Your task to perform on an android device: turn on translation in the chrome app Image 0: 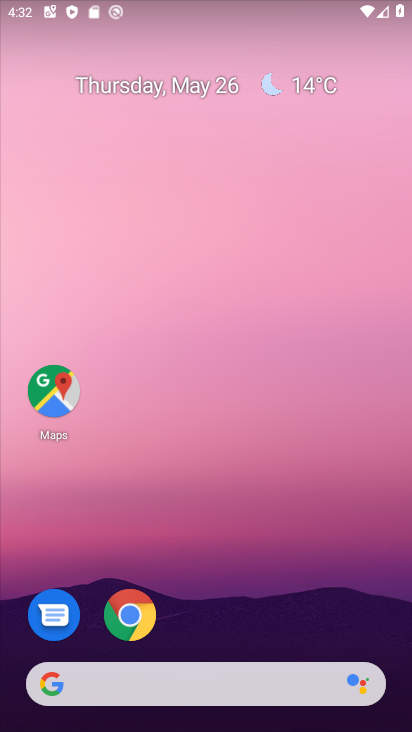
Step 0: drag from (216, 576) to (243, 100)
Your task to perform on an android device: turn on translation in the chrome app Image 1: 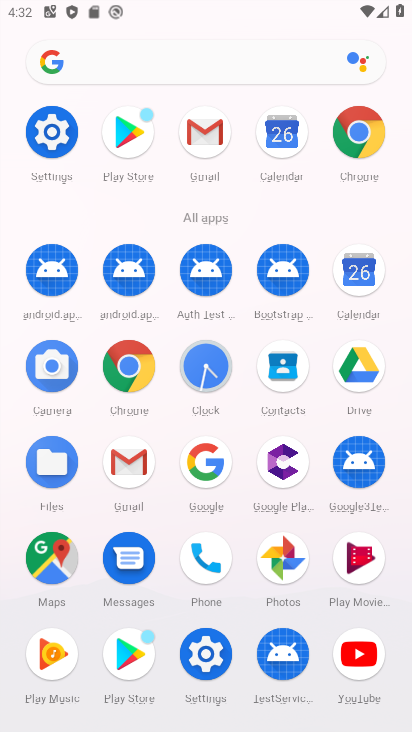
Step 1: click (362, 138)
Your task to perform on an android device: turn on translation in the chrome app Image 2: 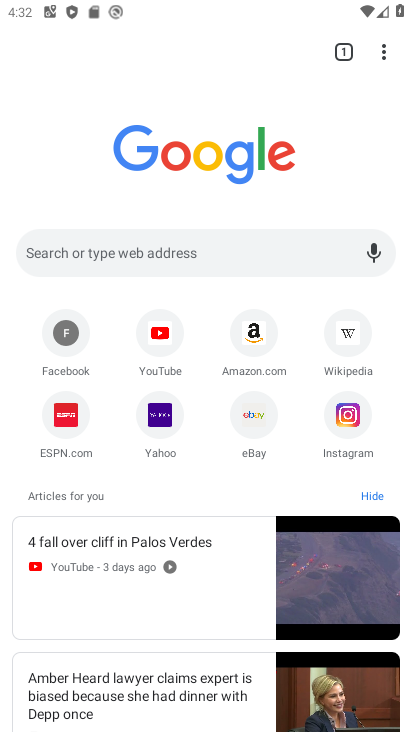
Step 2: drag from (387, 51) to (221, 447)
Your task to perform on an android device: turn on translation in the chrome app Image 3: 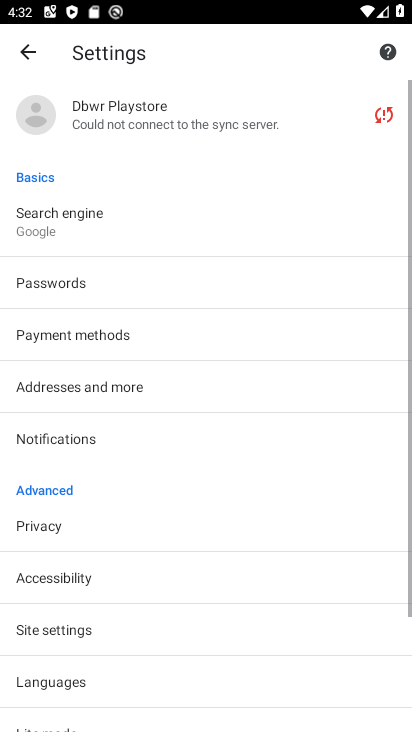
Step 3: drag from (147, 586) to (218, 57)
Your task to perform on an android device: turn on translation in the chrome app Image 4: 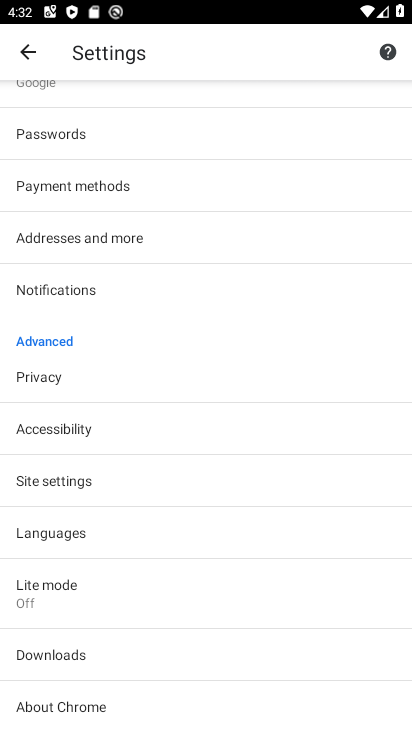
Step 4: click (81, 548)
Your task to perform on an android device: turn on translation in the chrome app Image 5: 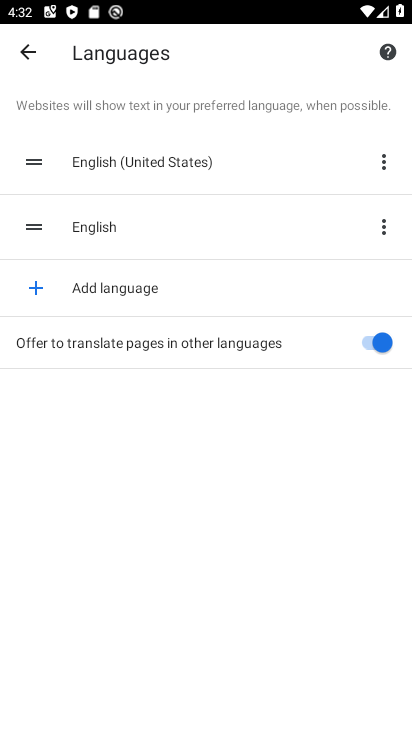
Step 5: task complete